Your task to perform on an android device: check data usage Image 0: 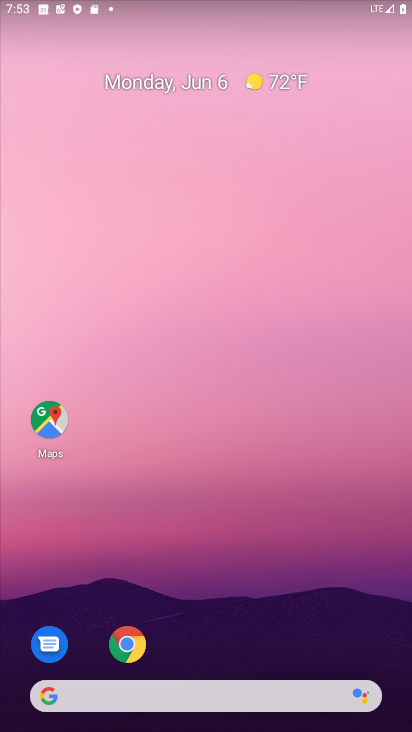
Step 0: drag from (215, 714) to (200, 118)
Your task to perform on an android device: check data usage Image 1: 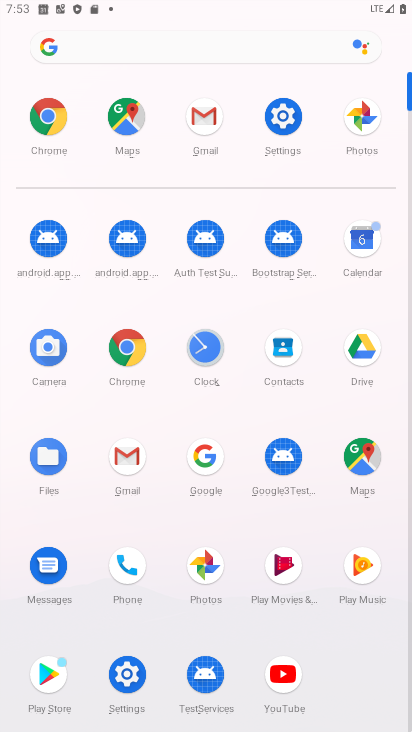
Step 1: click (287, 114)
Your task to perform on an android device: check data usage Image 2: 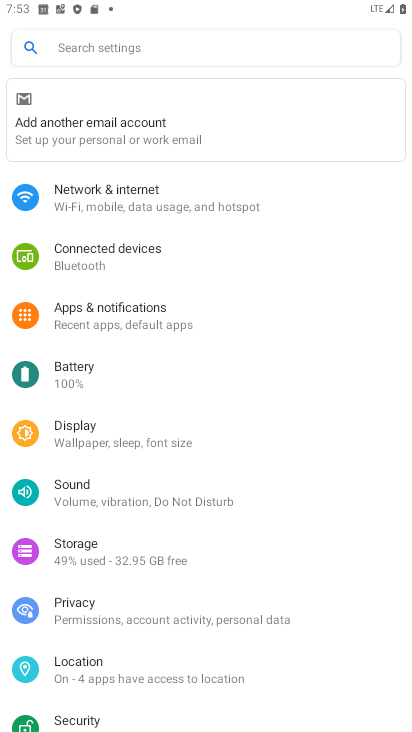
Step 2: click (127, 45)
Your task to perform on an android device: check data usage Image 3: 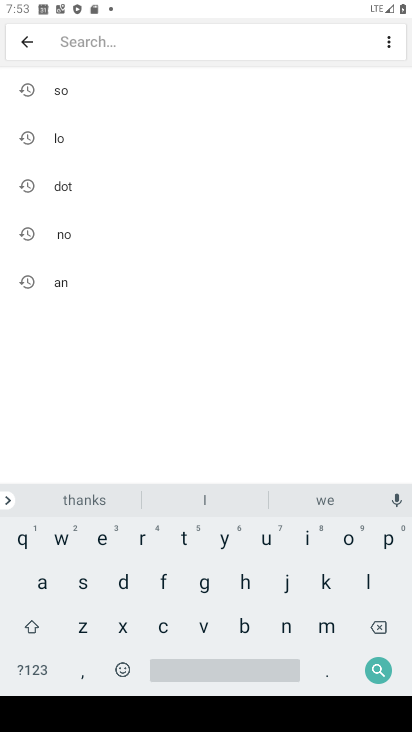
Step 3: click (112, 582)
Your task to perform on an android device: check data usage Image 4: 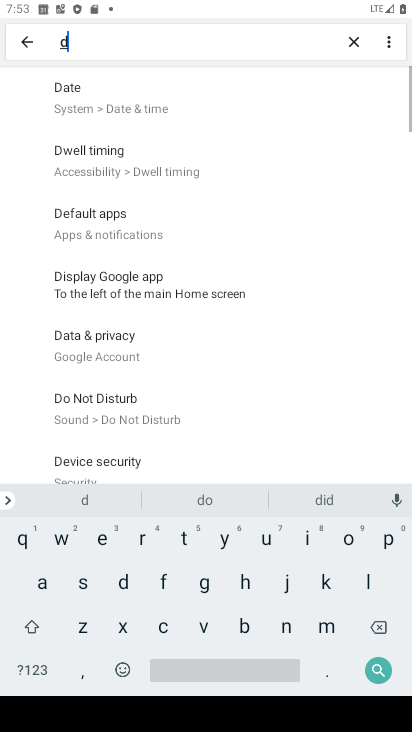
Step 4: click (39, 575)
Your task to perform on an android device: check data usage Image 5: 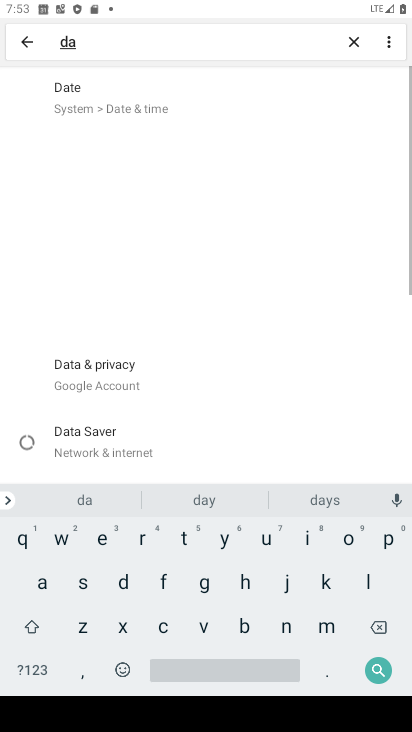
Step 5: click (178, 534)
Your task to perform on an android device: check data usage Image 6: 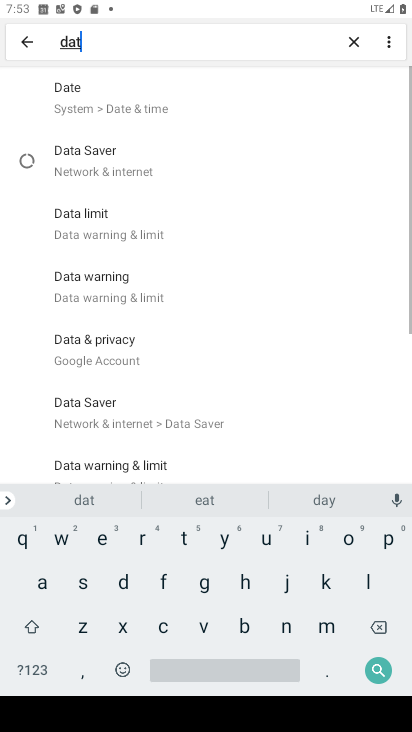
Step 6: click (35, 583)
Your task to perform on an android device: check data usage Image 7: 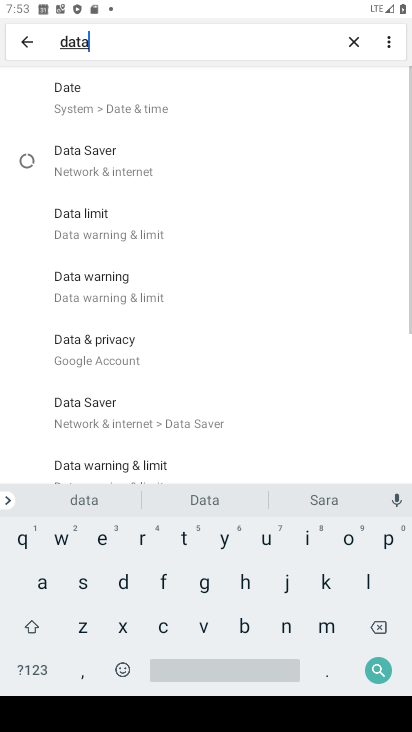
Step 7: click (203, 676)
Your task to perform on an android device: check data usage Image 8: 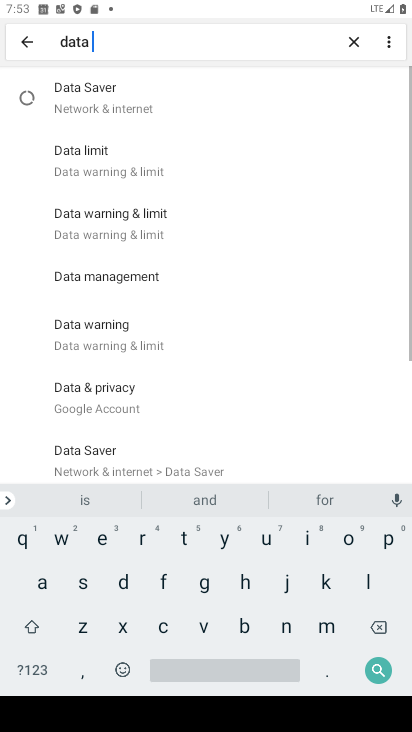
Step 8: click (253, 535)
Your task to perform on an android device: check data usage Image 9: 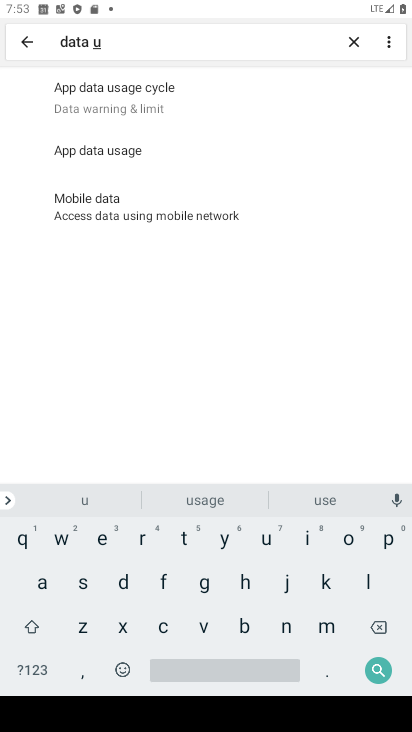
Step 9: click (143, 163)
Your task to perform on an android device: check data usage Image 10: 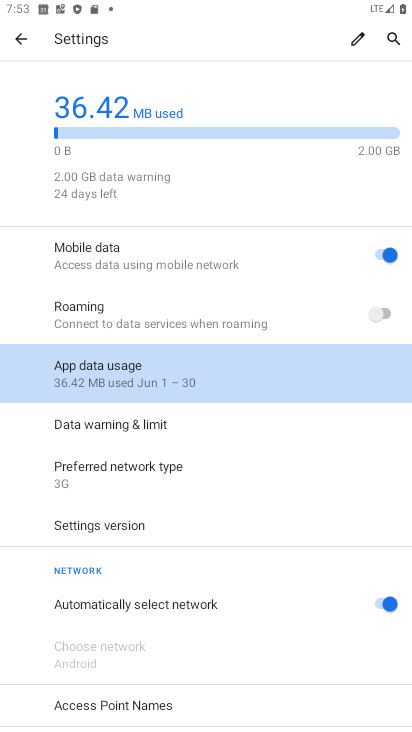
Step 10: click (136, 383)
Your task to perform on an android device: check data usage Image 11: 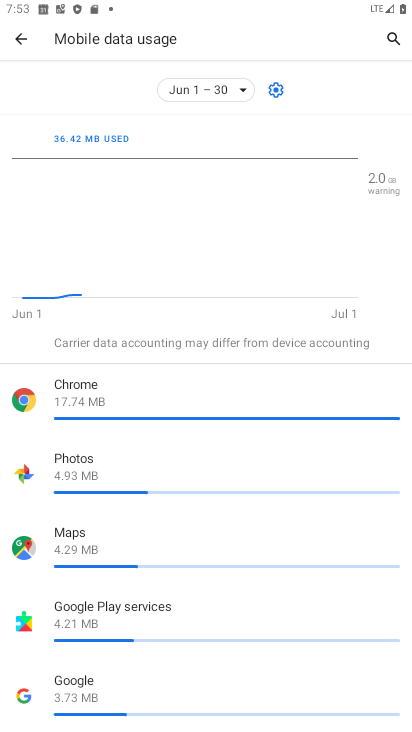
Step 11: task complete